Your task to perform on an android device: allow cookies in the chrome app Image 0: 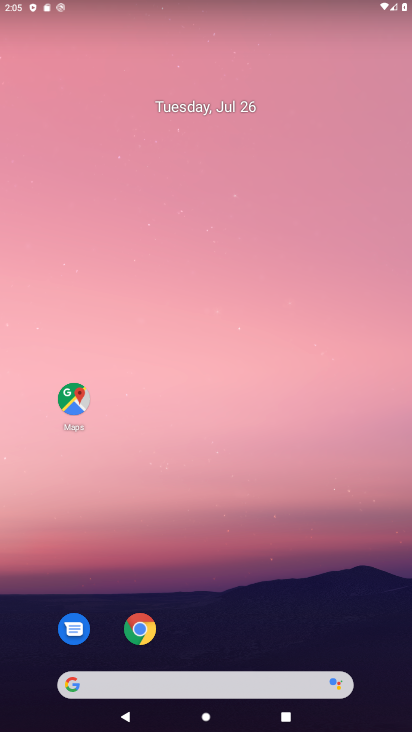
Step 0: click (141, 623)
Your task to perform on an android device: allow cookies in the chrome app Image 1: 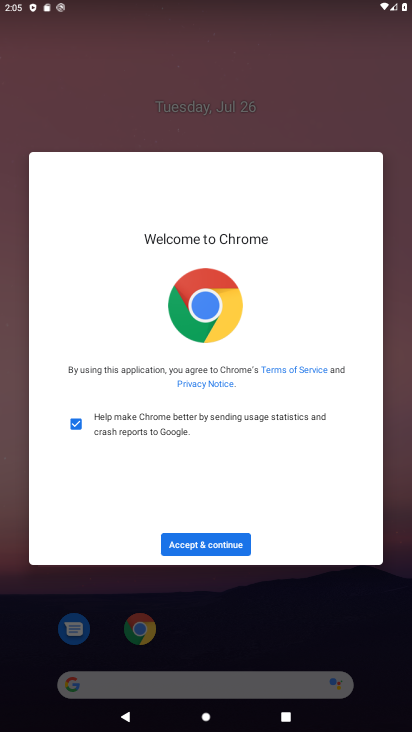
Step 1: click (233, 537)
Your task to perform on an android device: allow cookies in the chrome app Image 2: 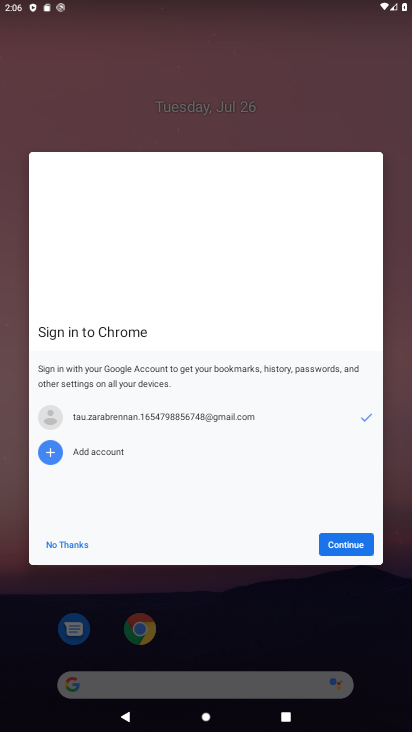
Step 2: click (361, 545)
Your task to perform on an android device: allow cookies in the chrome app Image 3: 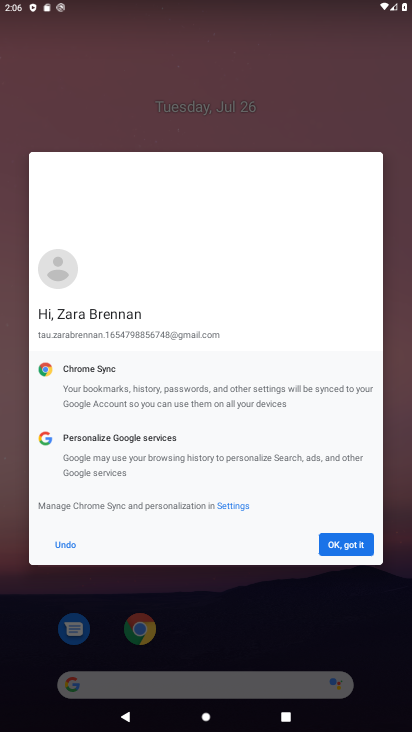
Step 3: click (361, 545)
Your task to perform on an android device: allow cookies in the chrome app Image 4: 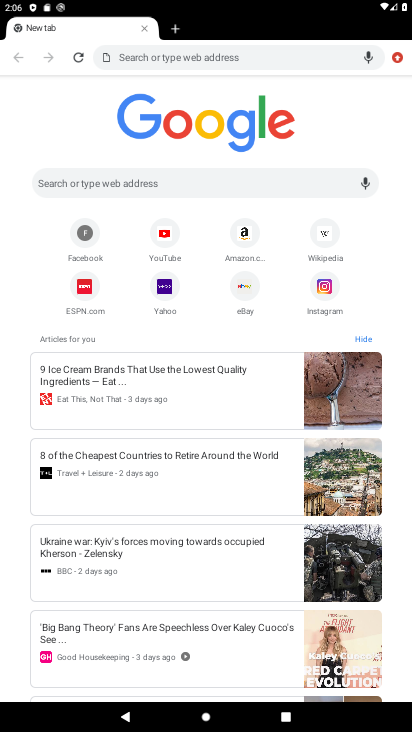
Step 4: click (391, 56)
Your task to perform on an android device: allow cookies in the chrome app Image 5: 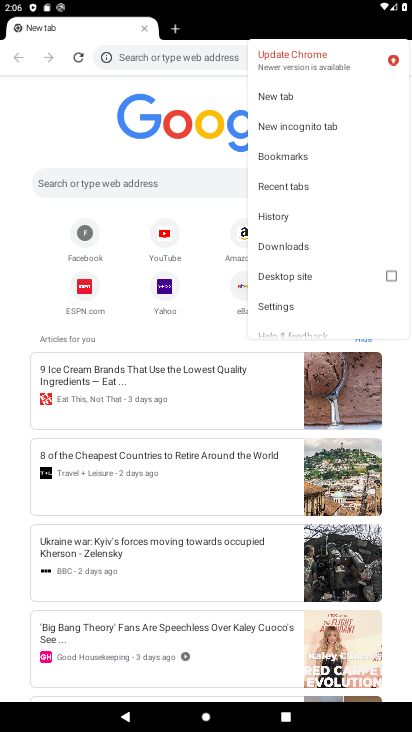
Step 5: click (306, 310)
Your task to perform on an android device: allow cookies in the chrome app Image 6: 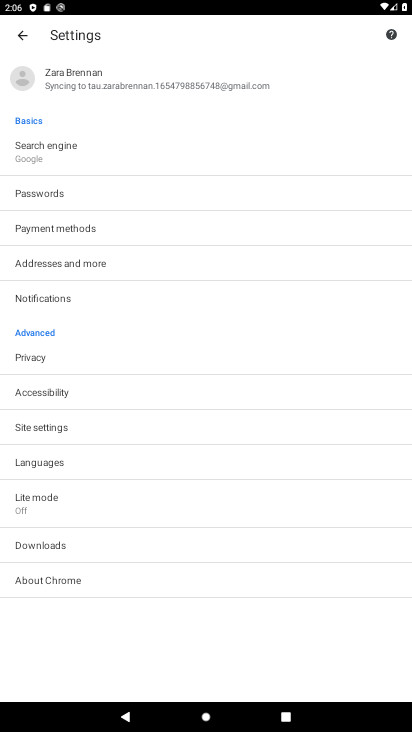
Step 6: click (111, 434)
Your task to perform on an android device: allow cookies in the chrome app Image 7: 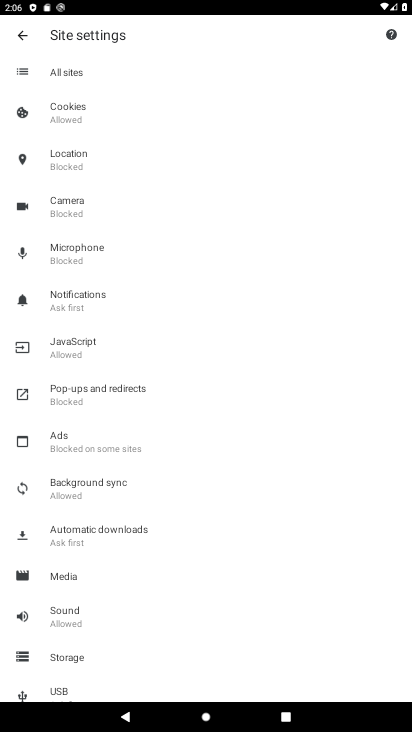
Step 7: click (140, 106)
Your task to perform on an android device: allow cookies in the chrome app Image 8: 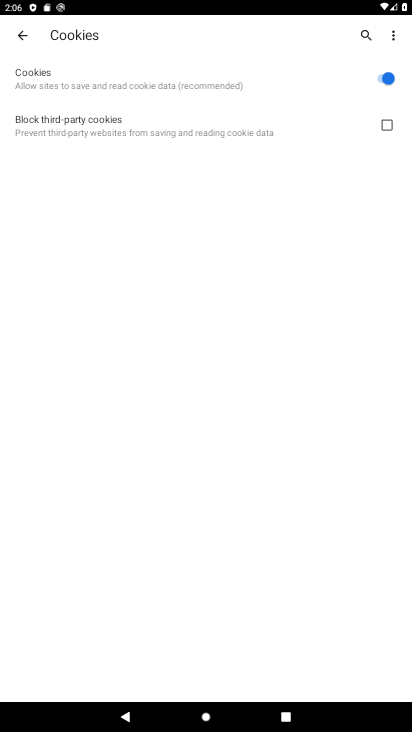
Step 8: task complete